Your task to perform on an android device: toggle notifications settings in the gmail app Image 0: 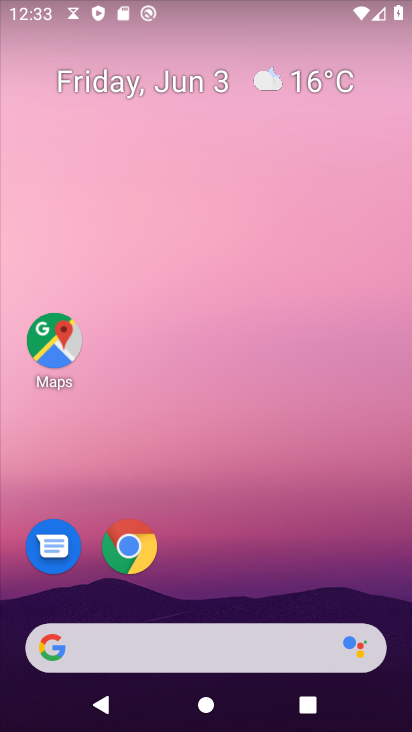
Step 0: drag from (237, 581) to (289, 93)
Your task to perform on an android device: toggle notifications settings in the gmail app Image 1: 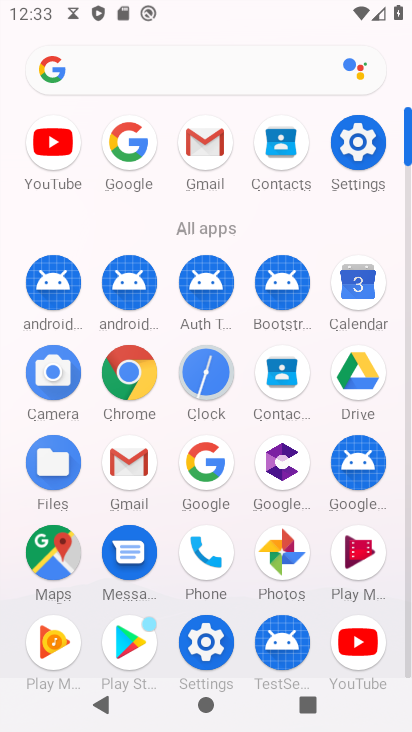
Step 1: click (211, 135)
Your task to perform on an android device: toggle notifications settings in the gmail app Image 2: 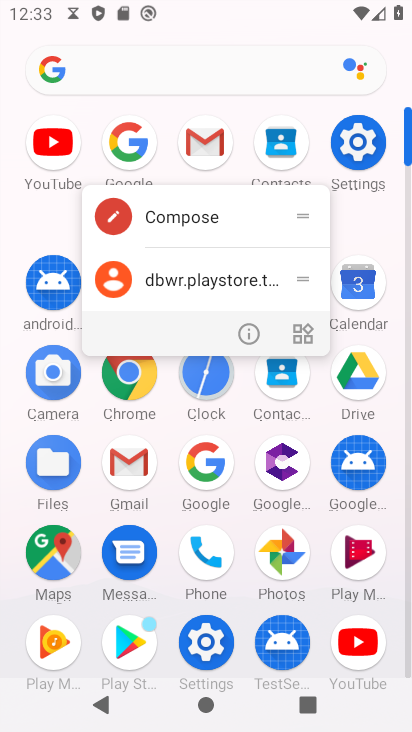
Step 2: click (258, 331)
Your task to perform on an android device: toggle notifications settings in the gmail app Image 3: 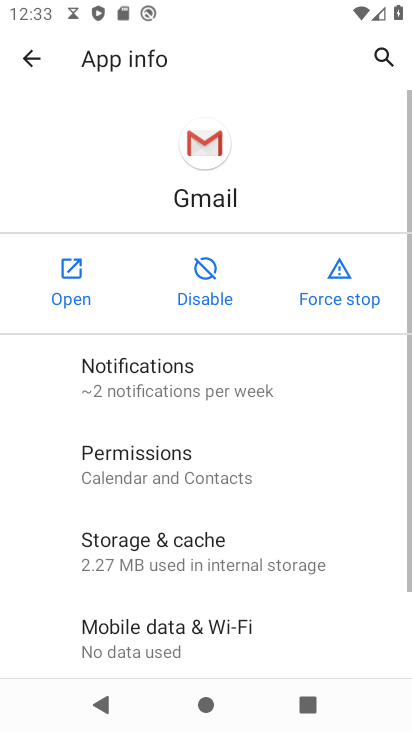
Step 3: click (173, 373)
Your task to perform on an android device: toggle notifications settings in the gmail app Image 4: 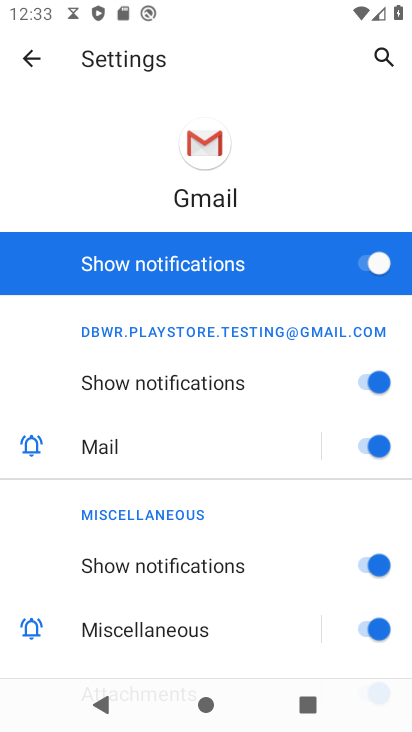
Step 4: click (375, 270)
Your task to perform on an android device: toggle notifications settings in the gmail app Image 5: 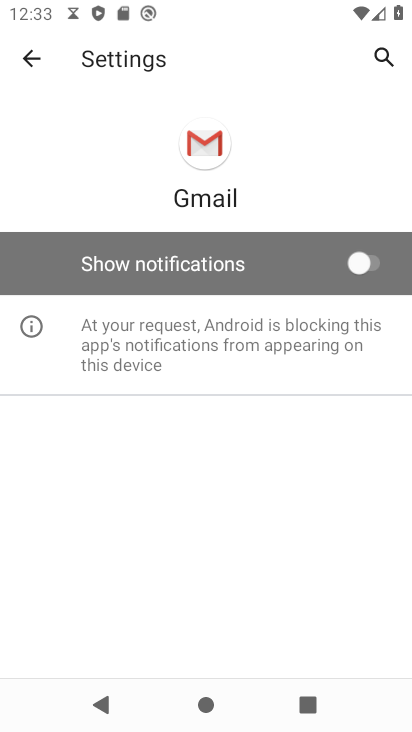
Step 5: task complete